Your task to perform on an android device: visit the assistant section in the google photos Image 0: 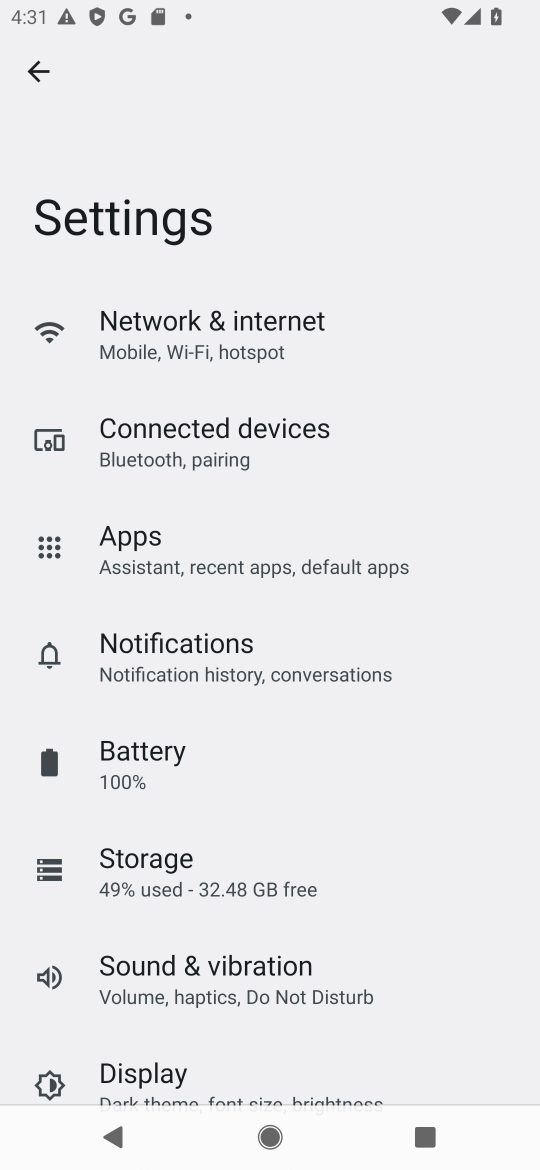
Step 0: press home button
Your task to perform on an android device: visit the assistant section in the google photos Image 1: 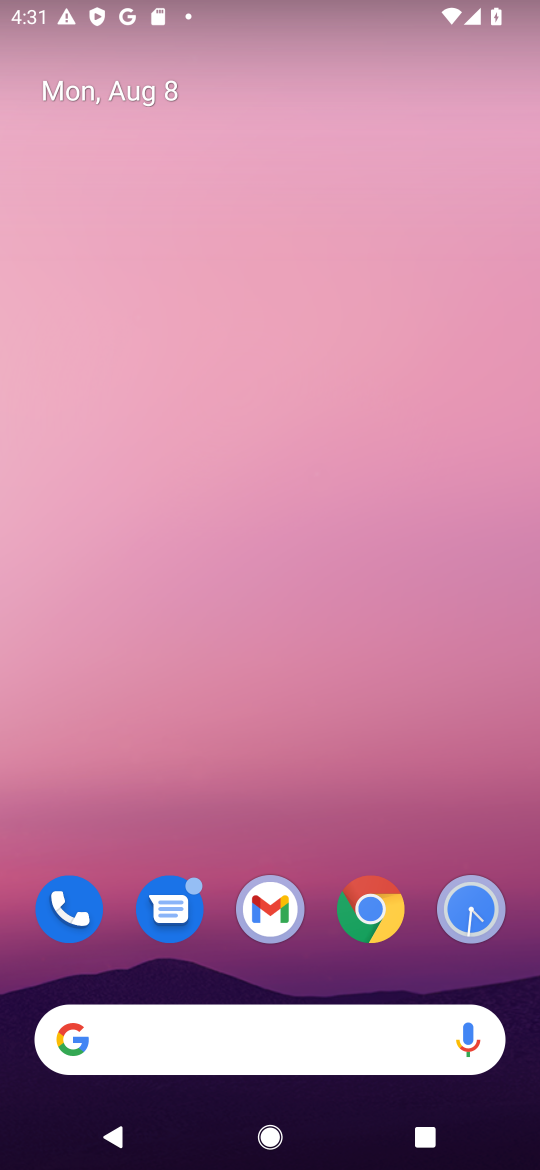
Step 1: drag from (262, 1041) to (419, 101)
Your task to perform on an android device: visit the assistant section in the google photos Image 2: 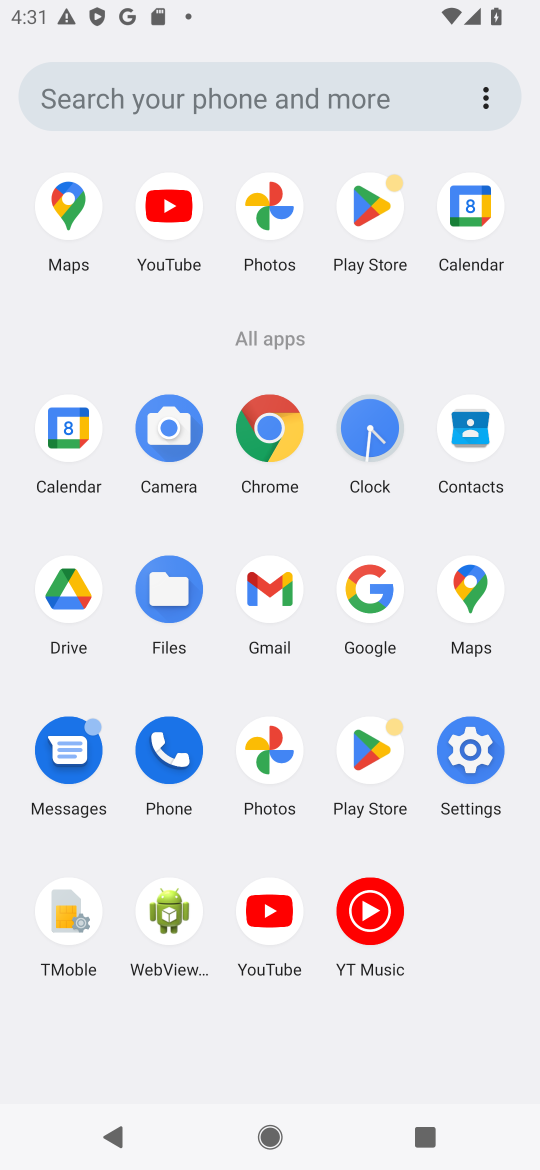
Step 2: click (268, 751)
Your task to perform on an android device: visit the assistant section in the google photos Image 3: 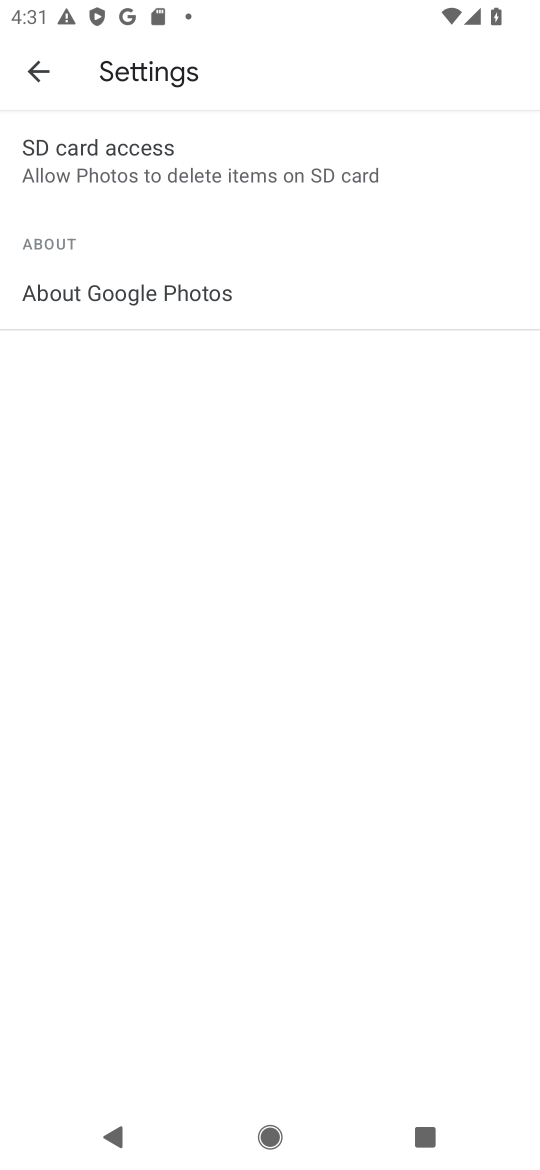
Step 3: click (48, 73)
Your task to perform on an android device: visit the assistant section in the google photos Image 4: 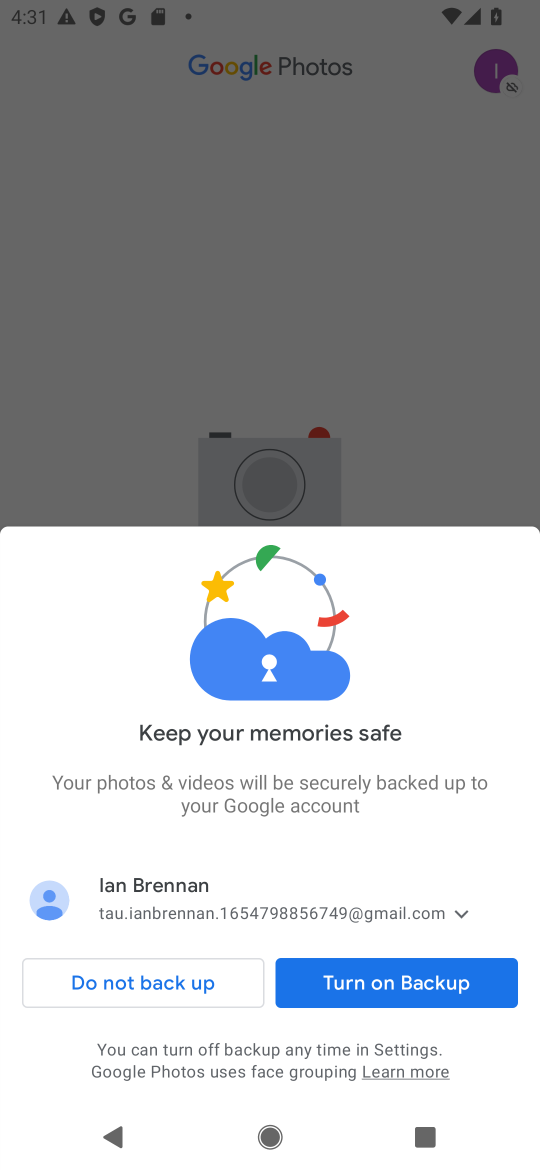
Step 4: click (470, 1061)
Your task to perform on an android device: visit the assistant section in the google photos Image 5: 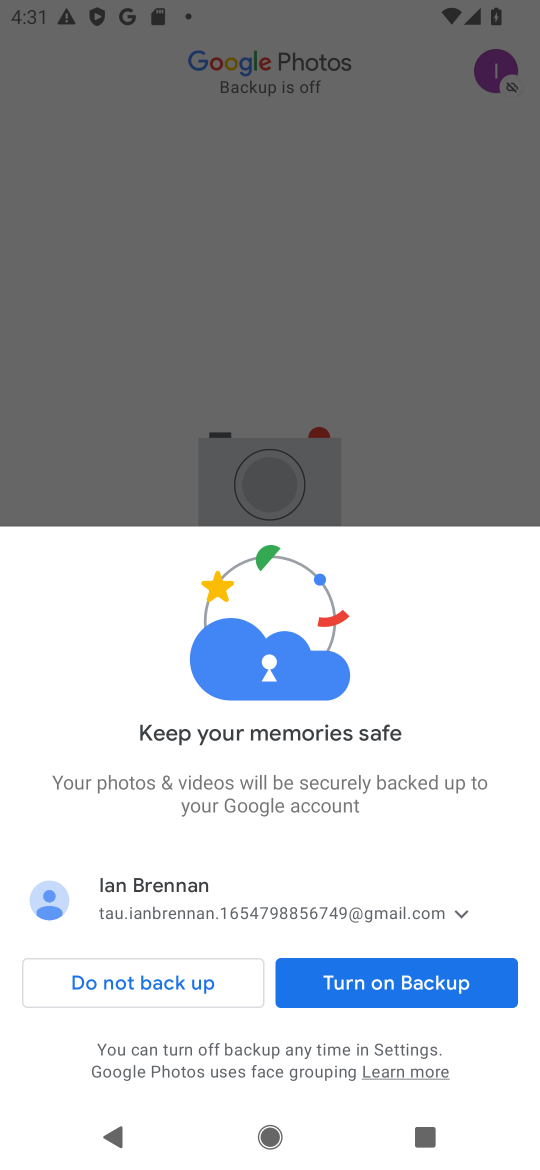
Step 5: click (451, 997)
Your task to perform on an android device: visit the assistant section in the google photos Image 6: 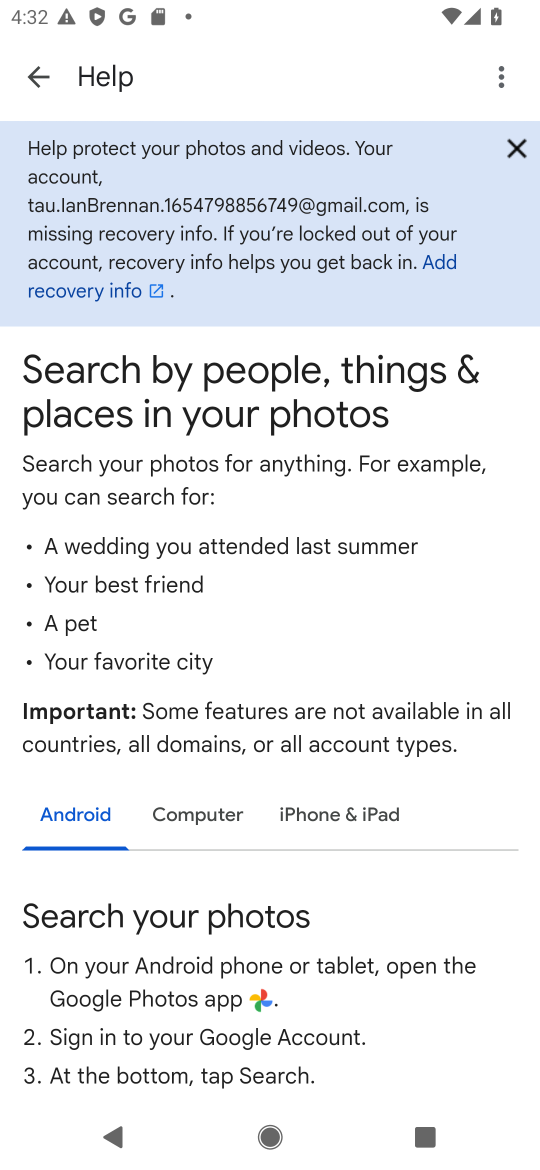
Step 6: click (42, 72)
Your task to perform on an android device: visit the assistant section in the google photos Image 7: 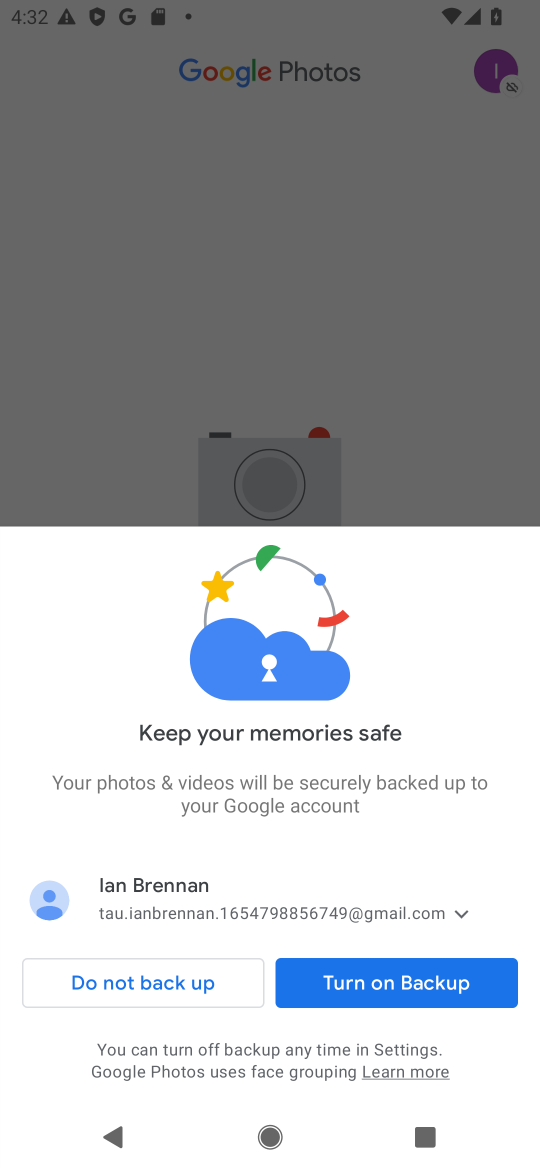
Step 7: click (381, 985)
Your task to perform on an android device: visit the assistant section in the google photos Image 8: 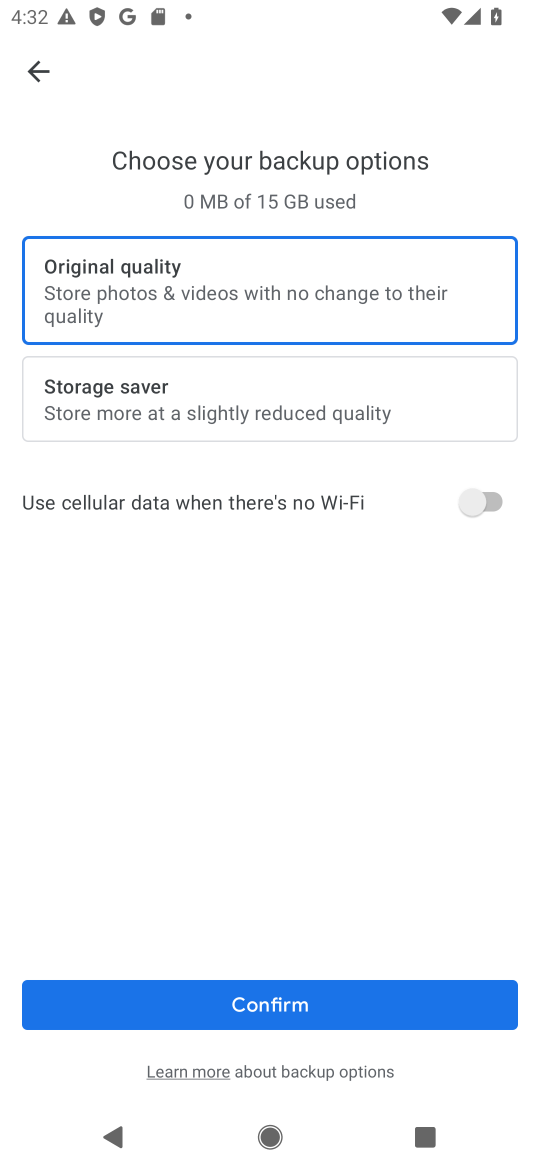
Step 8: click (316, 996)
Your task to perform on an android device: visit the assistant section in the google photos Image 9: 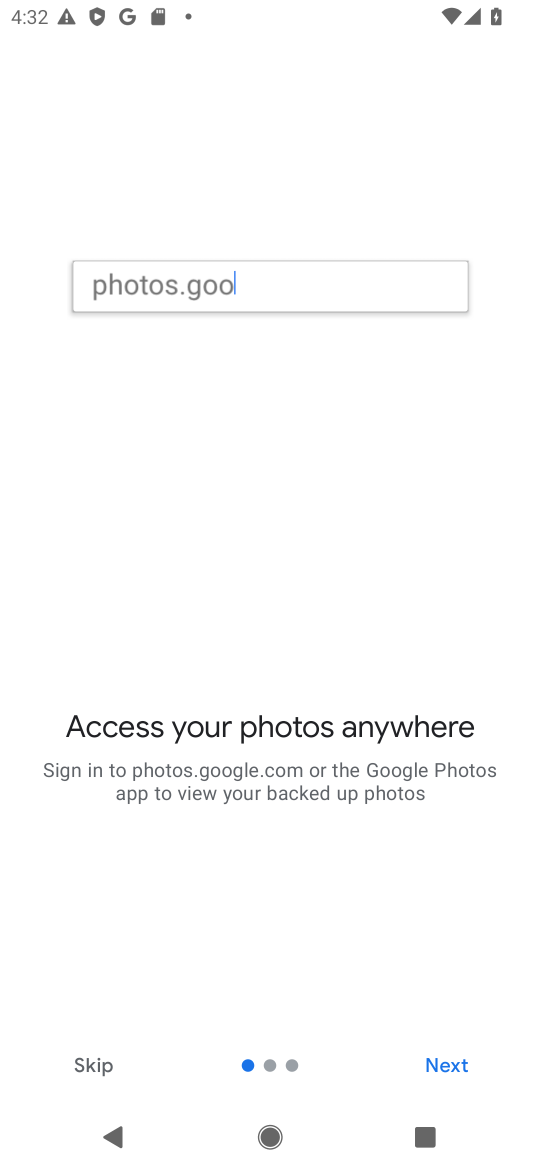
Step 9: click (444, 1065)
Your task to perform on an android device: visit the assistant section in the google photos Image 10: 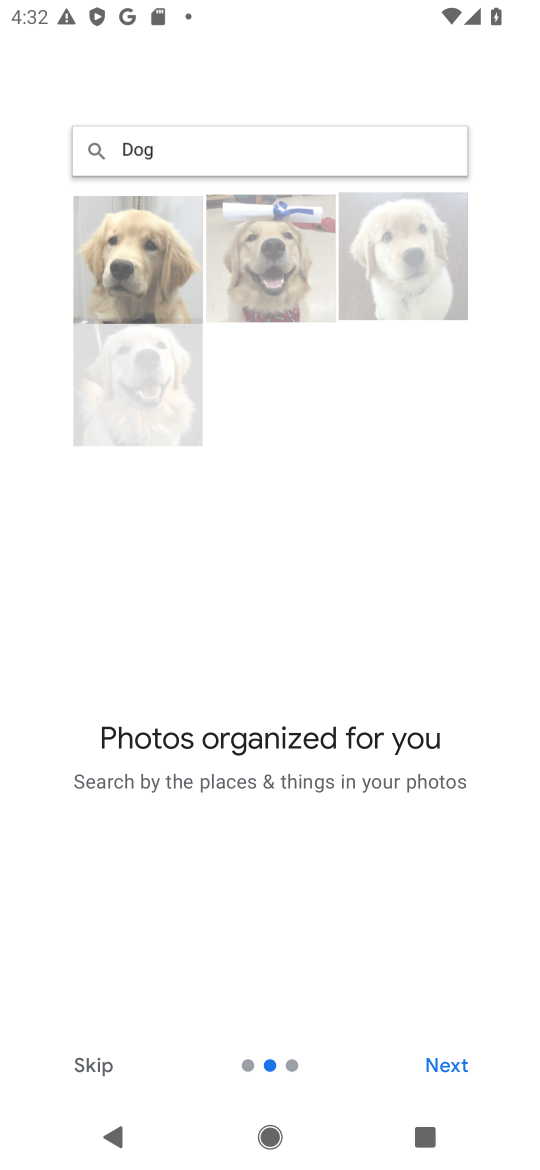
Step 10: click (433, 1050)
Your task to perform on an android device: visit the assistant section in the google photos Image 11: 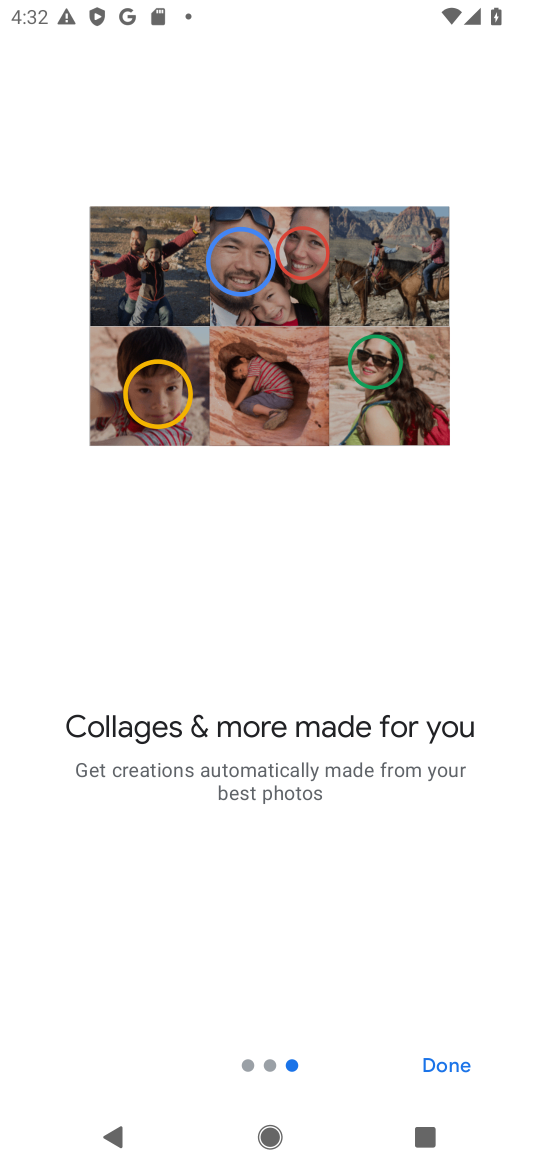
Step 11: click (434, 1070)
Your task to perform on an android device: visit the assistant section in the google photos Image 12: 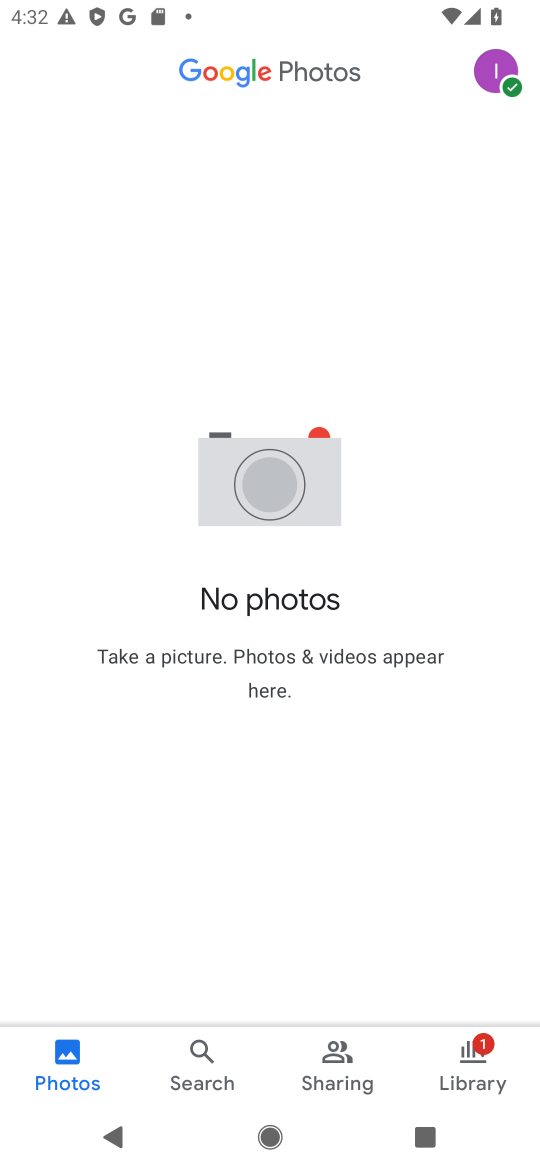
Step 12: click (458, 1050)
Your task to perform on an android device: visit the assistant section in the google photos Image 13: 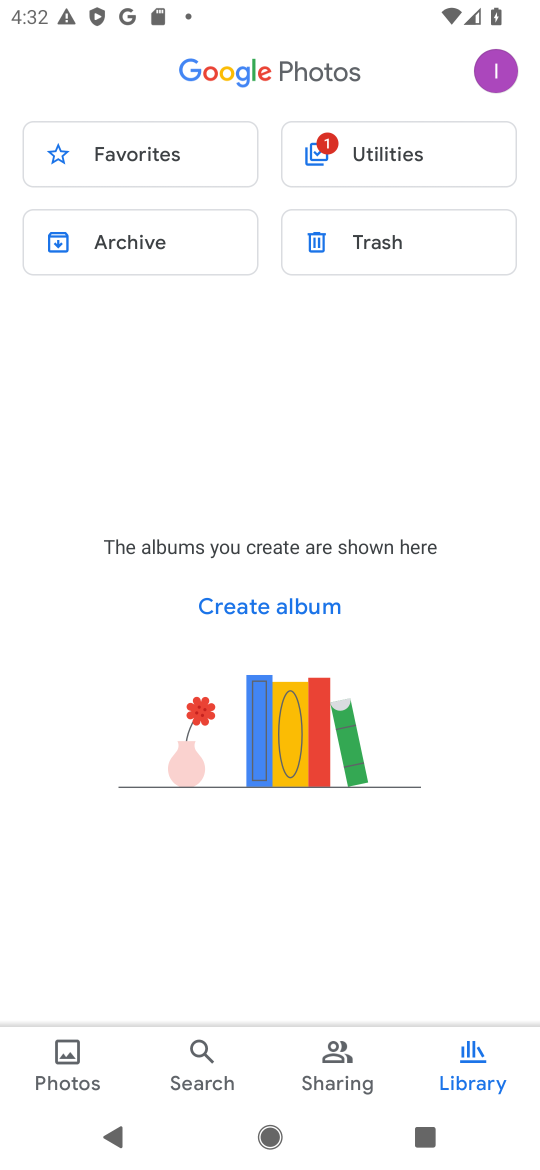
Step 13: task complete